Your task to perform on an android device: Do I have any events tomorrow? Image 0: 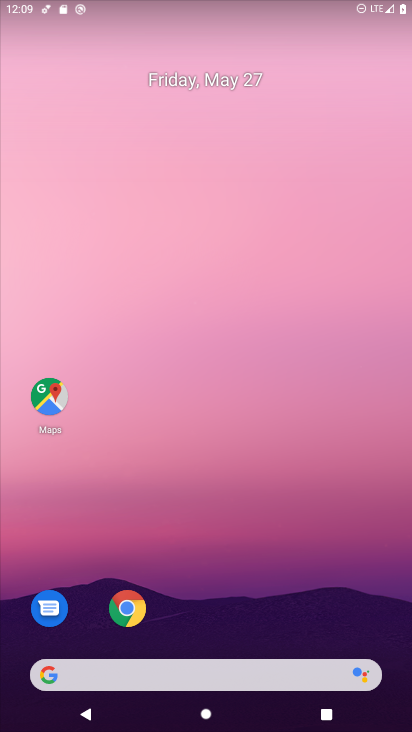
Step 0: drag from (130, 675) to (275, 173)
Your task to perform on an android device: Do I have any events tomorrow? Image 1: 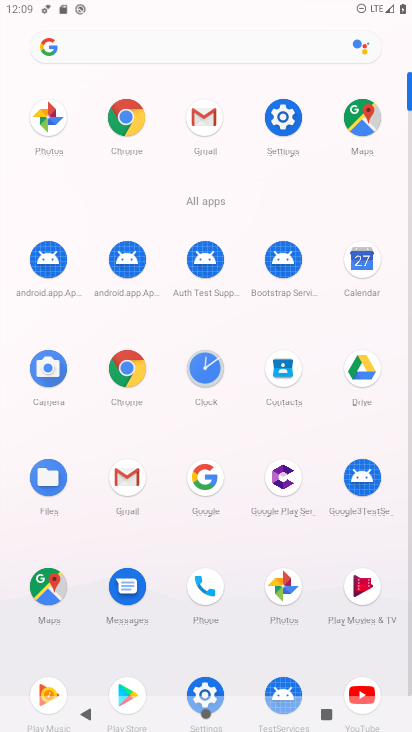
Step 1: click (363, 260)
Your task to perform on an android device: Do I have any events tomorrow? Image 2: 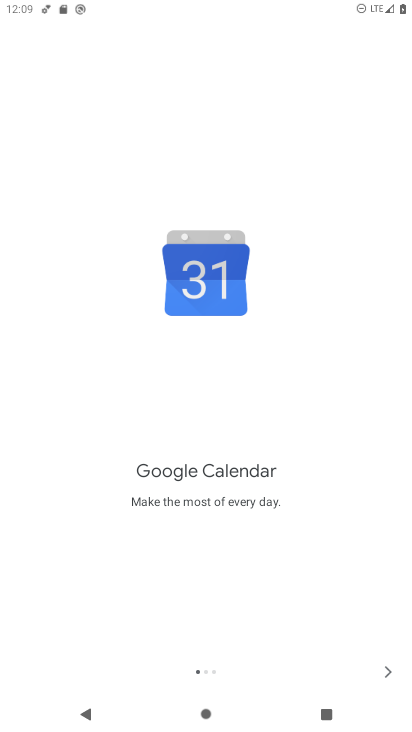
Step 2: click (380, 667)
Your task to perform on an android device: Do I have any events tomorrow? Image 3: 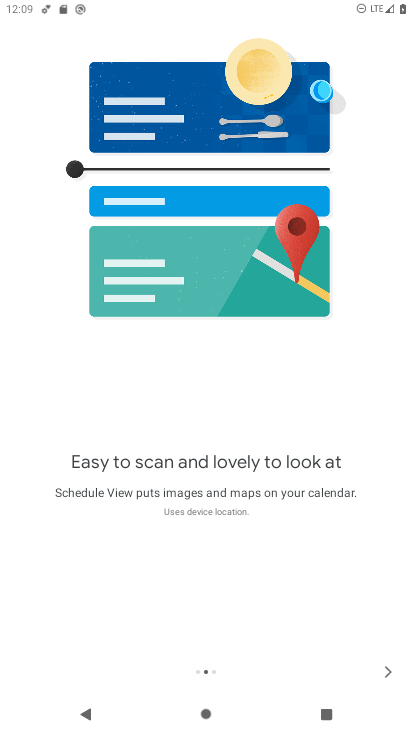
Step 3: click (380, 667)
Your task to perform on an android device: Do I have any events tomorrow? Image 4: 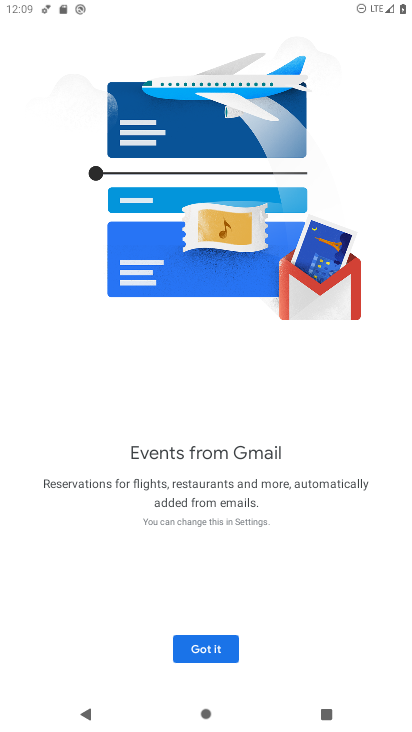
Step 4: click (184, 653)
Your task to perform on an android device: Do I have any events tomorrow? Image 5: 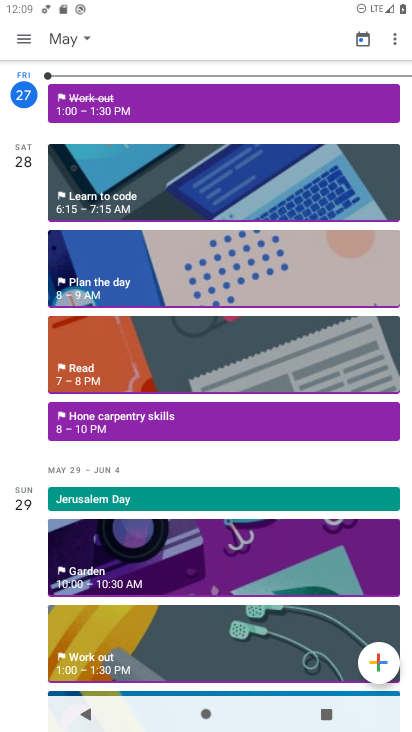
Step 5: click (62, 36)
Your task to perform on an android device: Do I have any events tomorrow? Image 6: 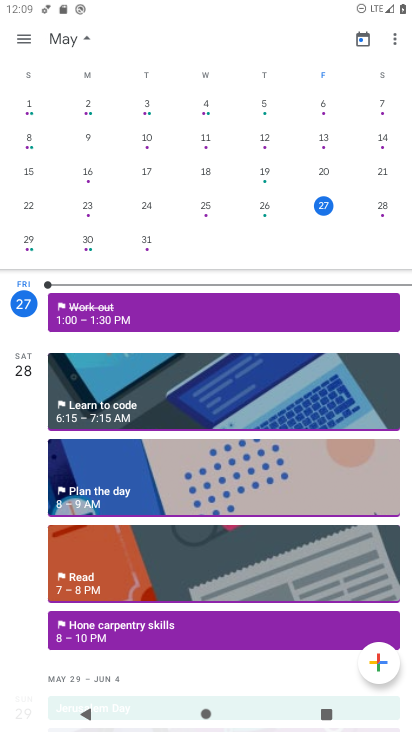
Step 6: click (380, 209)
Your task to perform on an android device: Do I have any events tomorrow? Image 7: 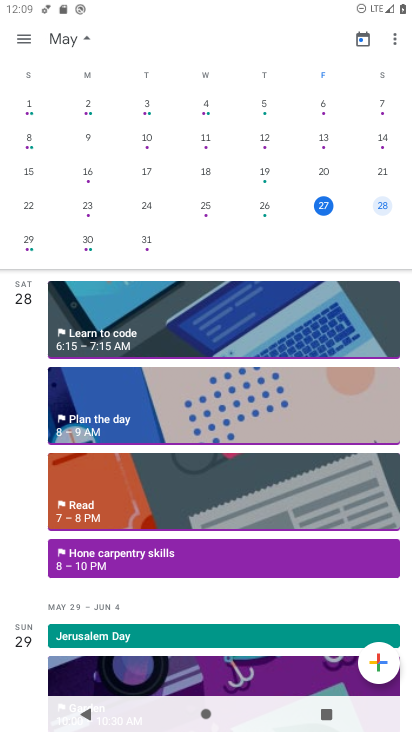
Step 7: click (18, 34)
Your task to perform on an android device: Do I have any events tomorrow? Image 8: 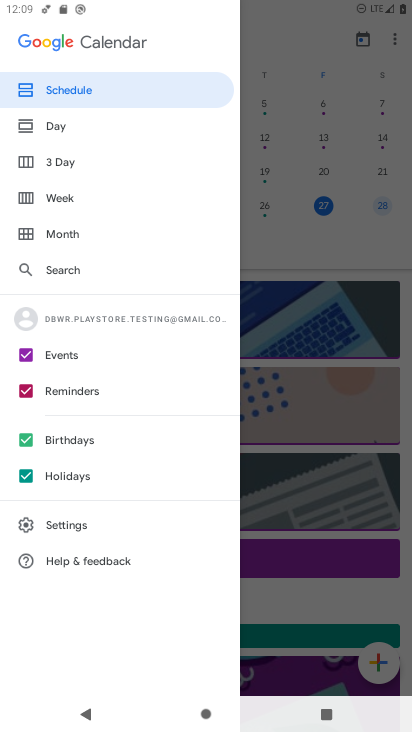
Step 8: click (51, 131)
Your task to perform on an android device: Do I have any events tomorrow? Image 9: 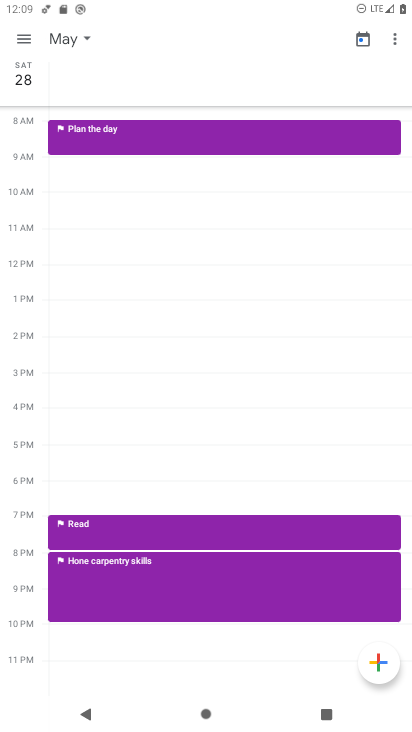
Step 9: click (19, 27)
Your task to perform on an android device: Do I have any events tomorrow? Image 10: 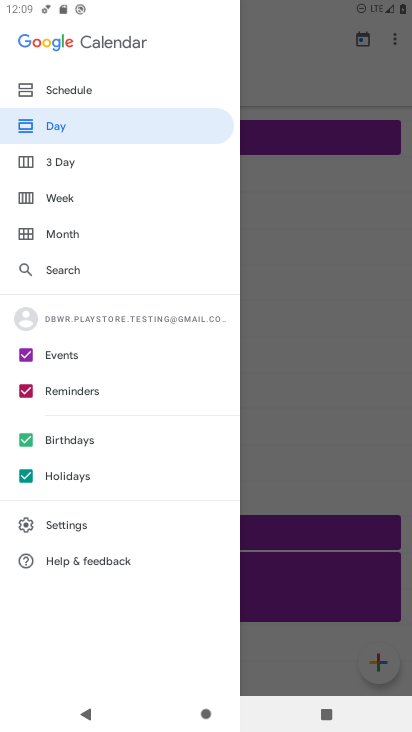
Step 10: click (67, 90)
Your task to perform on an android device: Do I have any events tomorrow? Image 11: 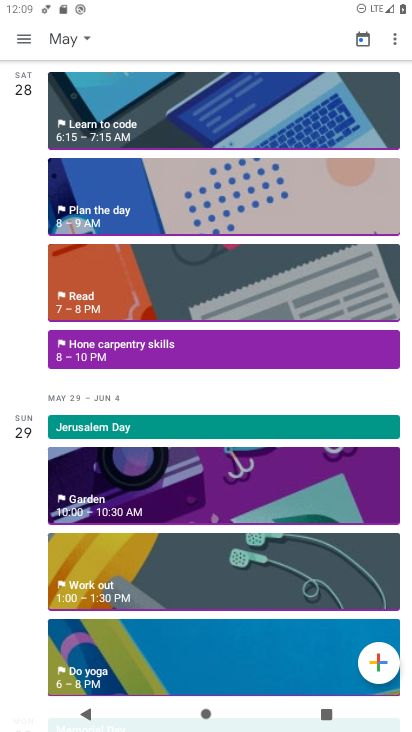
Step 11: click (183, 345)
Your task to perform on an android device: Do I have any events tomorrow? Image 12: 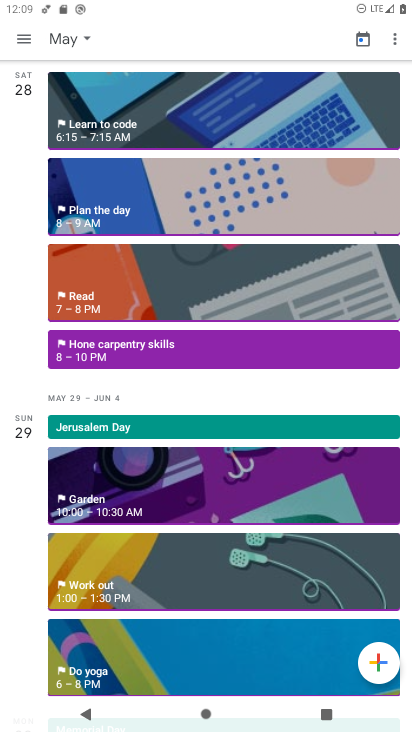
Step 12: click (138, 349)
Your task to perform on an android device: Do I have any events tomorrow? Image 13: 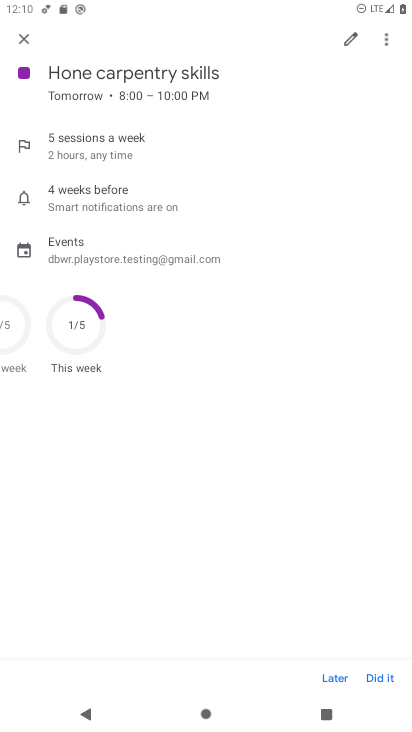
Step 13: task complete